Your task to perform on an android device: Where can I buy a nice beach cooler? Image 0: 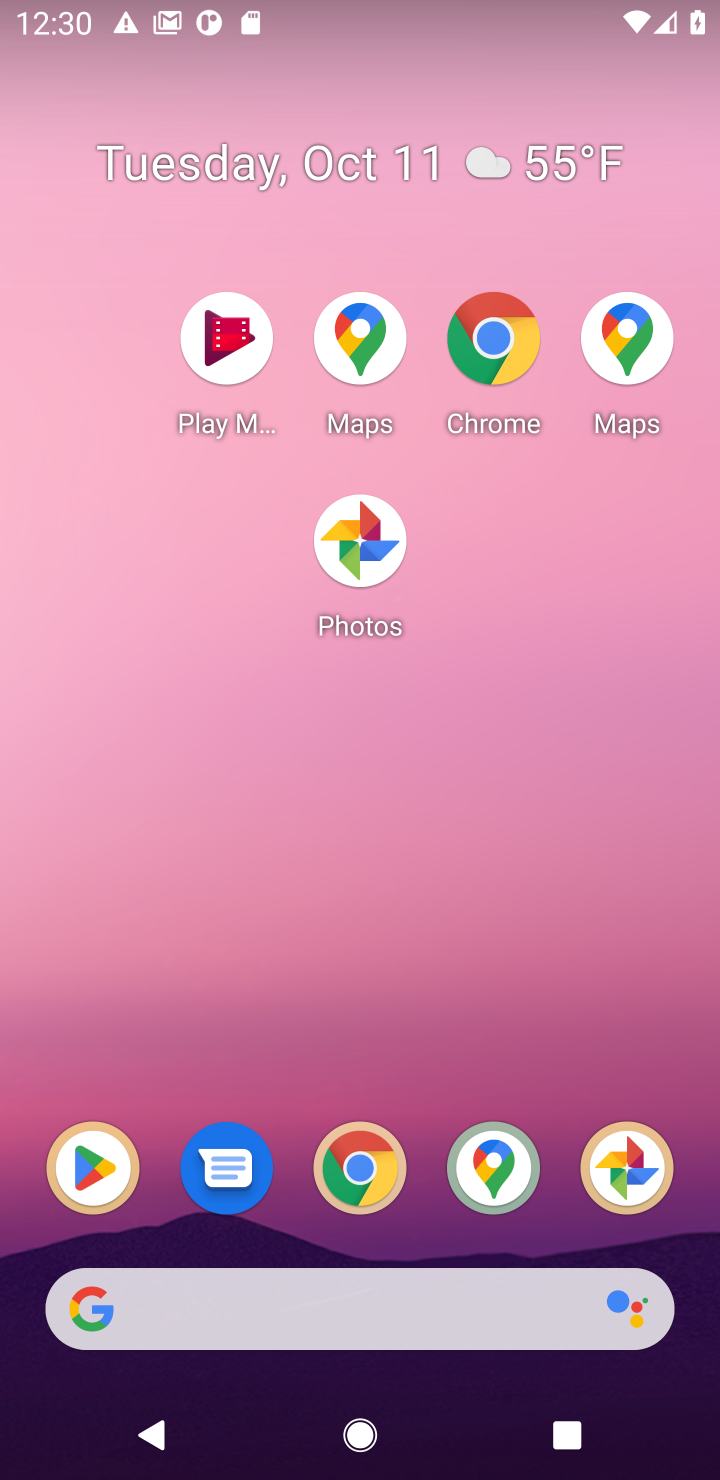
Step 0: drag from (583, 938) to (565, 515)
Your task to perform on an android device: Where can I buy a nice beach cooler? Image 1: 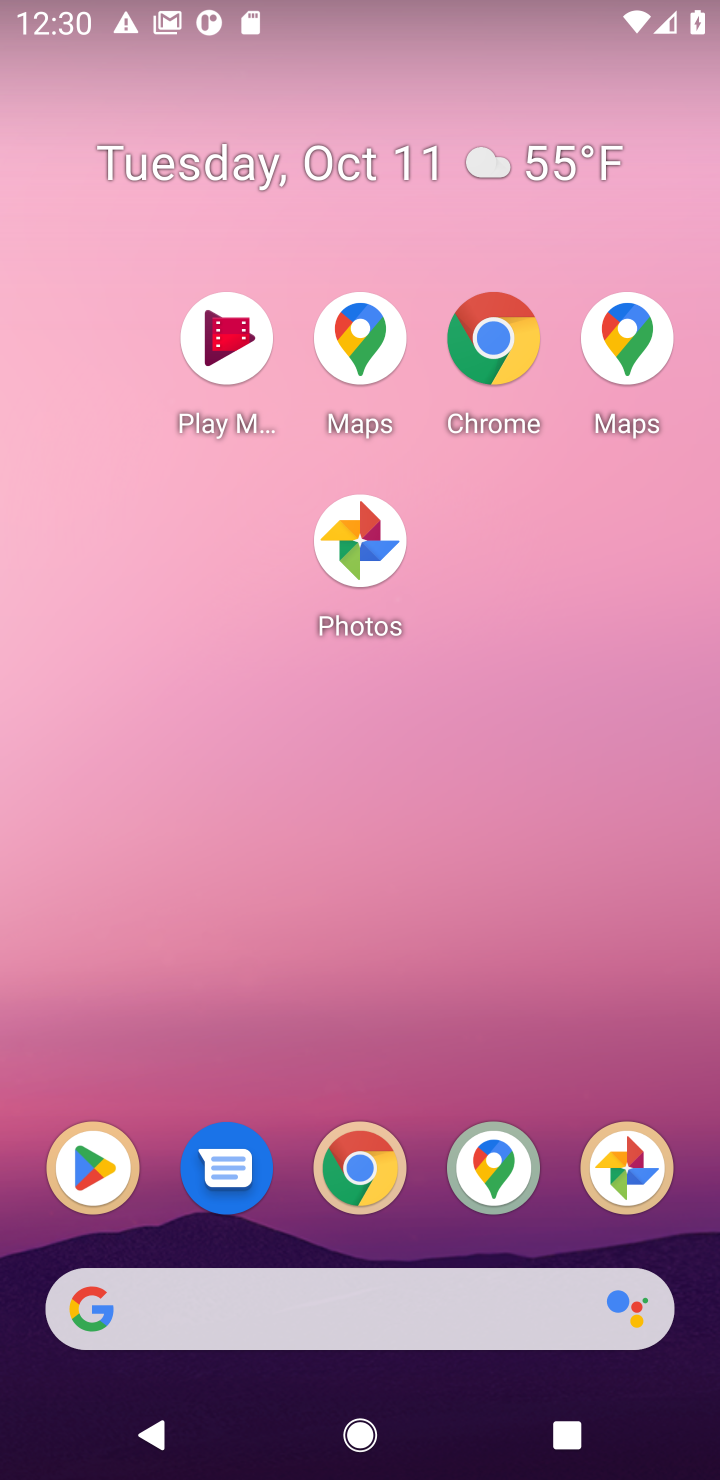
Step 1: drag from (408, 1136) to (562, 343)
Your task to perform on an android device: Where can I buy a nice beach cooler? Image 2: 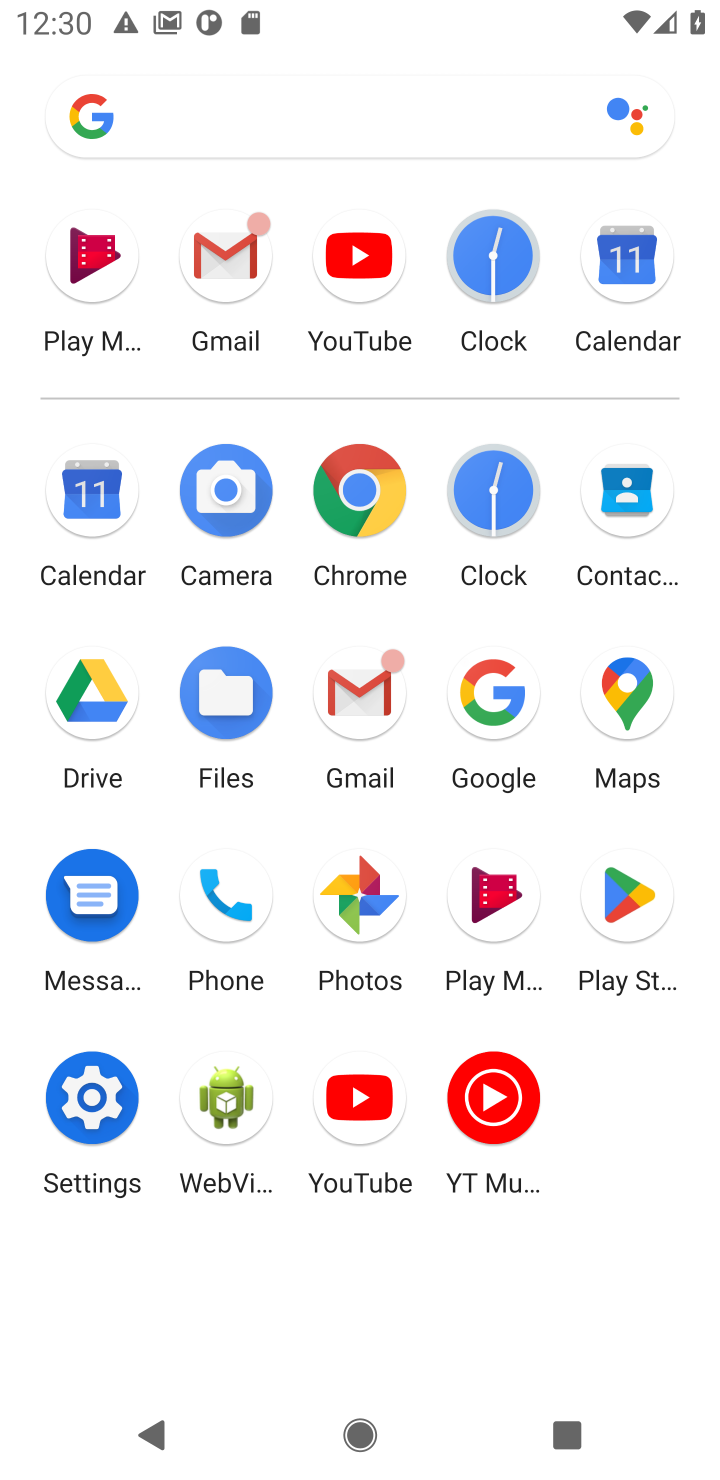
Step 2: click (477, 692)
Your task to perform on an android device: Where can I buy a nice beach cooler? Image 3: 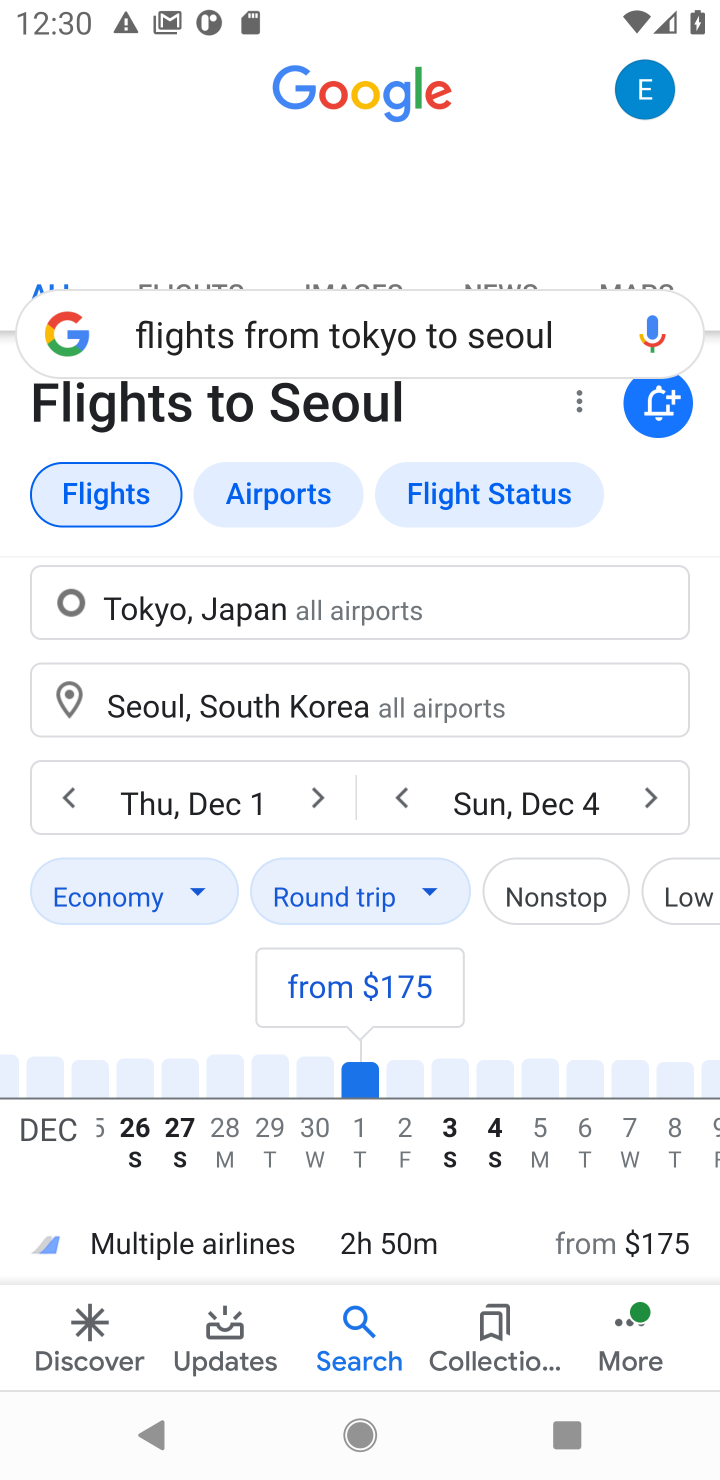
Step 3: click (460, 323)
Your task to perform on an android device: Where can I buy a nice beach cooler? Image 4: 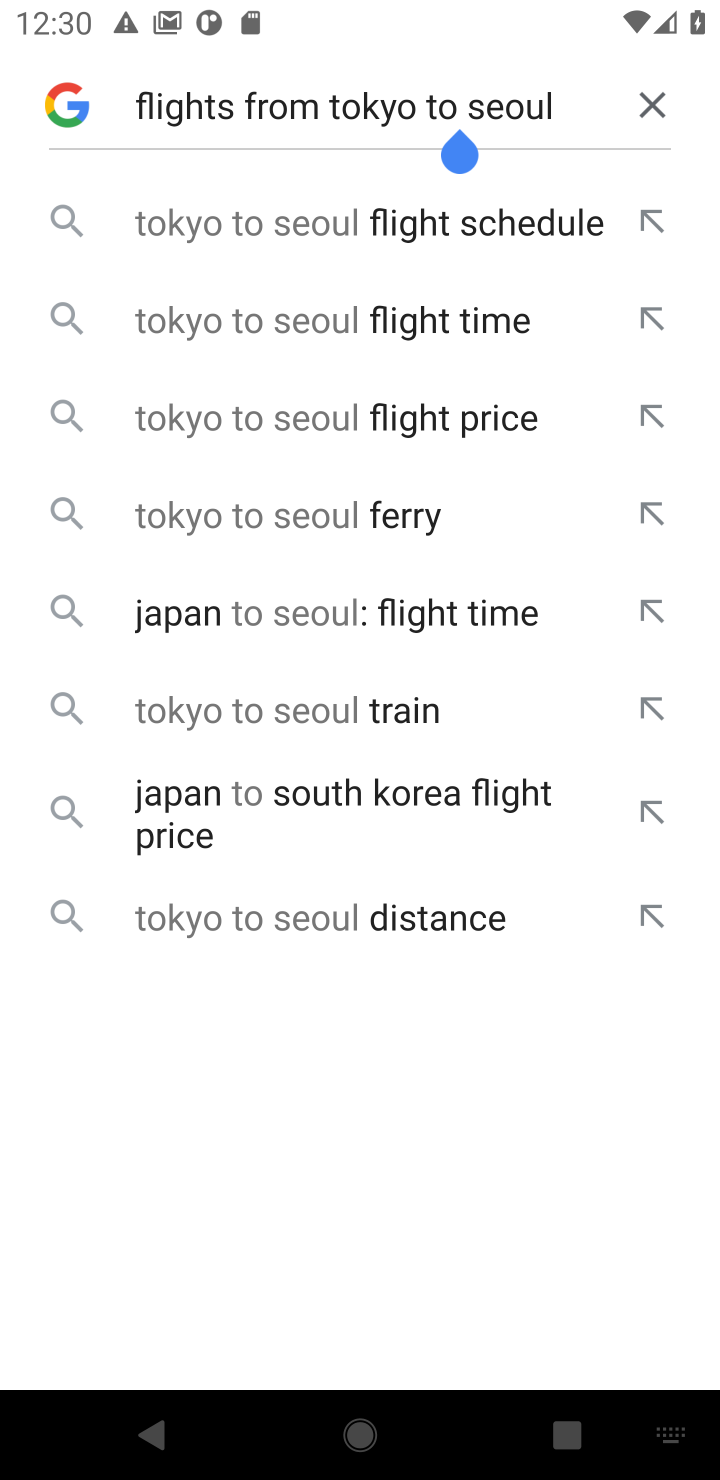
Step 4: click (655, 104)
Your task to perform on an android device: Where can I buy a nice beach cooler? Image 5: 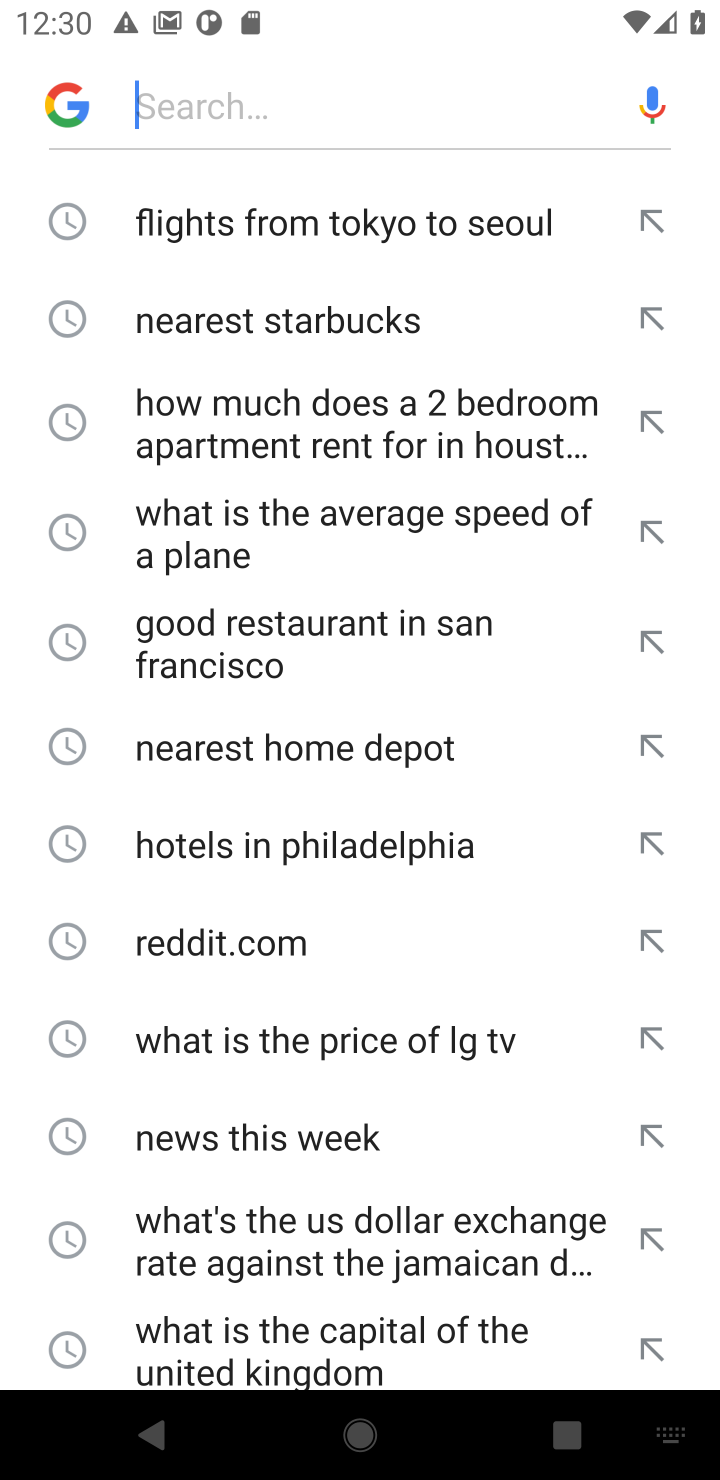
Step 5: type "nice beach cooler"
Your task to perform on an android device: Where can I buy a nice beach cooler? Image 6: 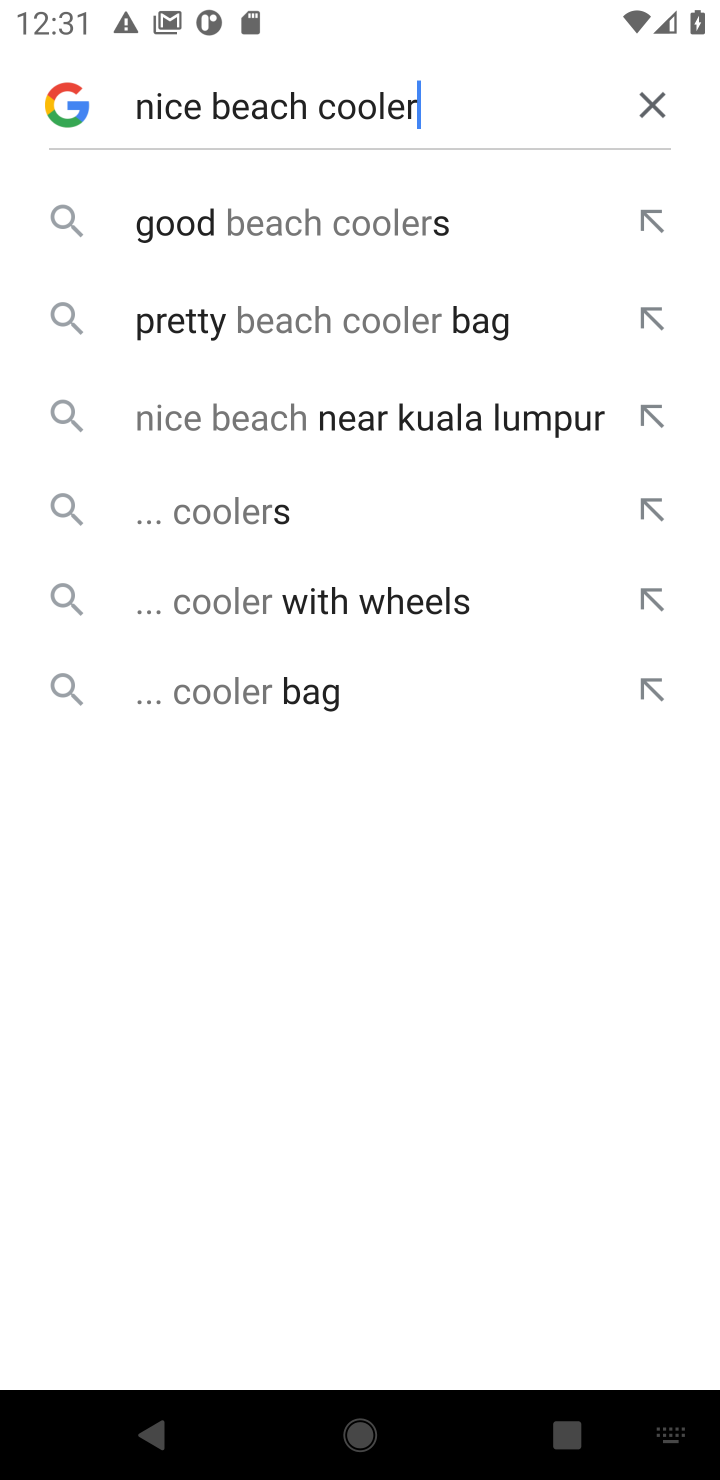
Step 6: click (369, 212)
Your task to perform on an android device: Where can I buy a nice beach cooler? Image 7: 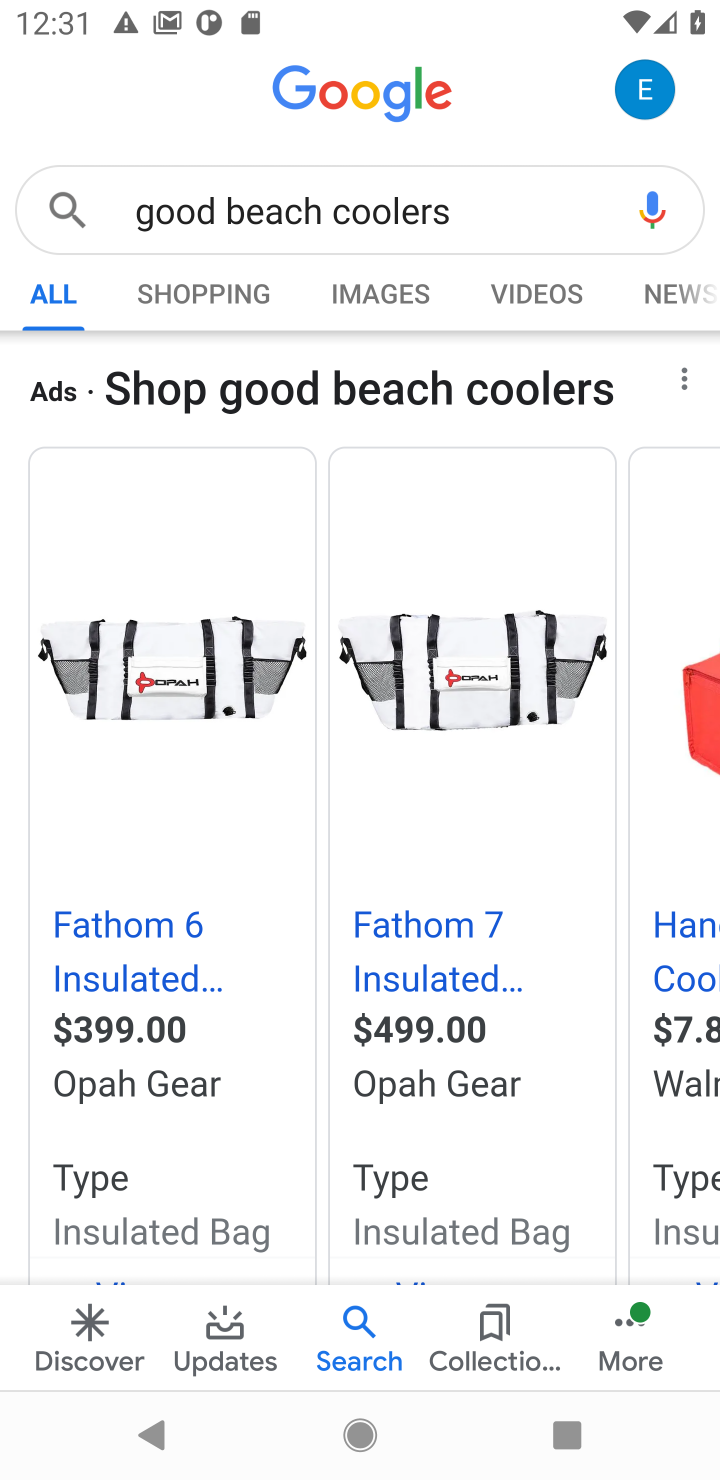
Step 7: click (194, 299)
Your task to perform on an android device: Where can I buy a nice beach cooler? Image 8: 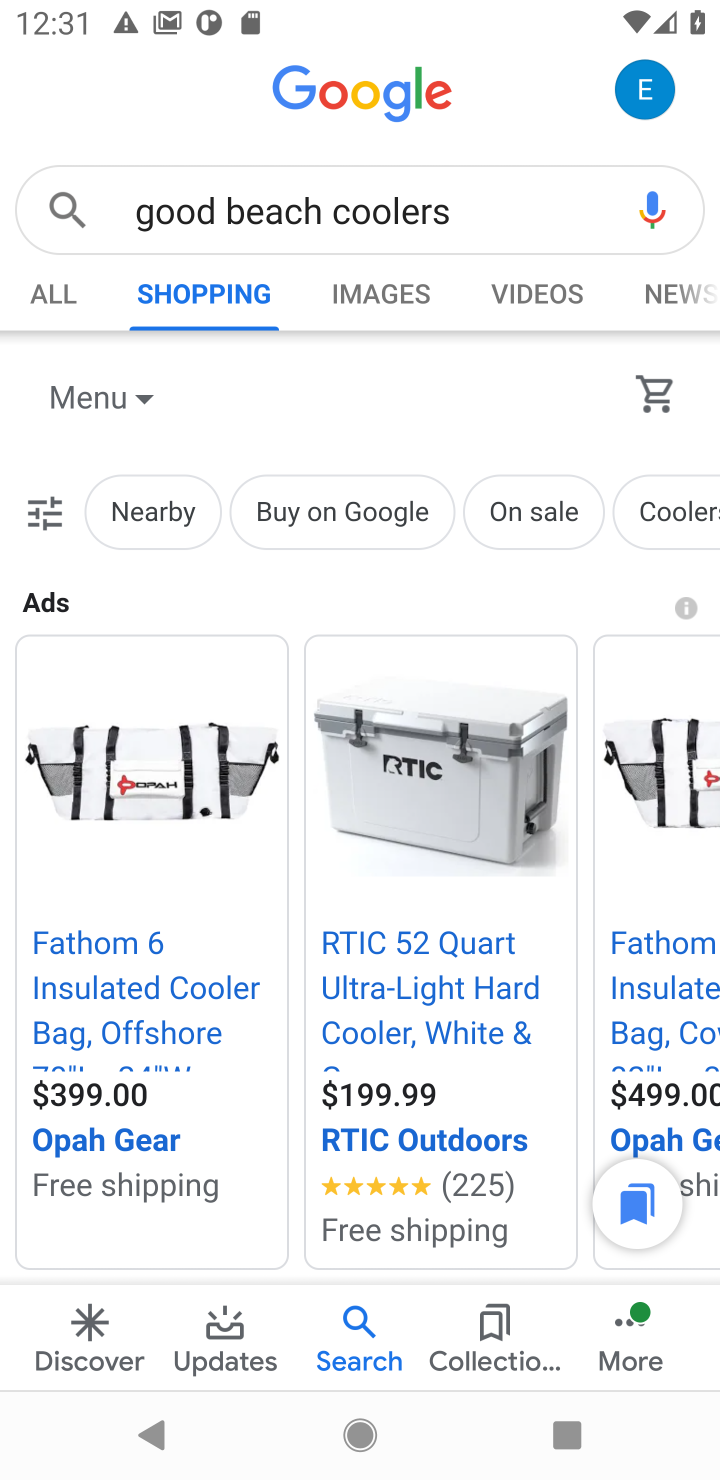
Step 8: task complete